Your task to perform on an android device: turn off wifi Image 0: 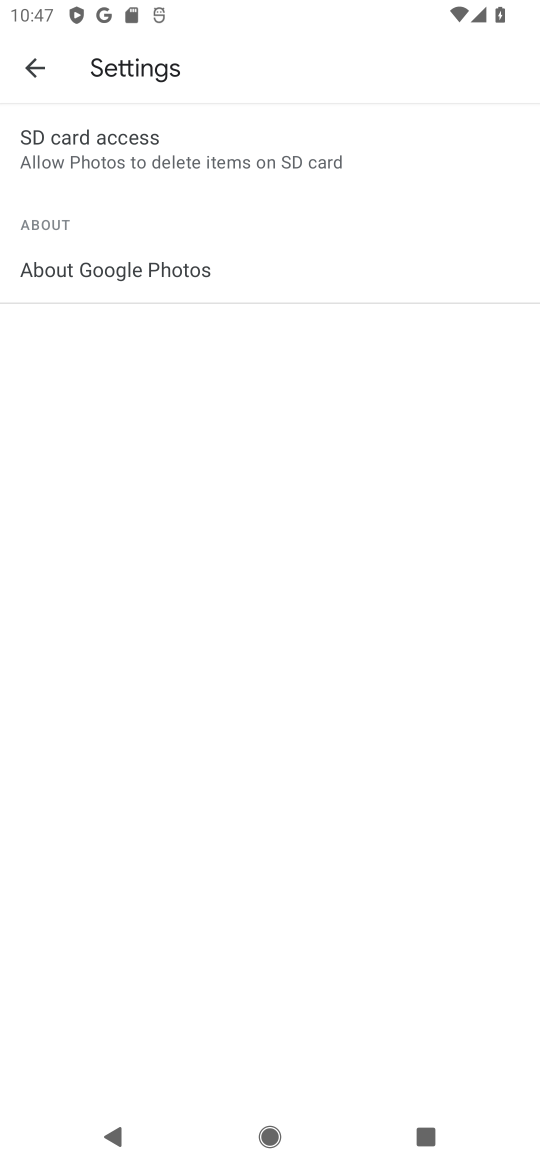
Step 0: drag from (214, 12) to (202, 931)
Your task to perform on an android device: turn off wifi Image 1: 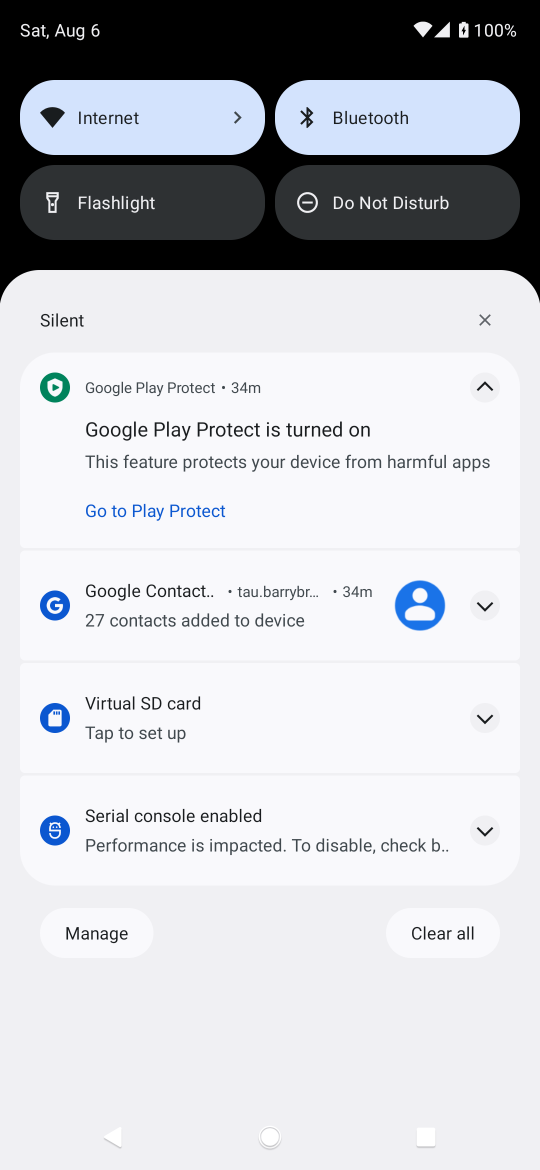
Step 1: click (107, 128)
Your task to perform on an android device: turn off wifi Image 2: 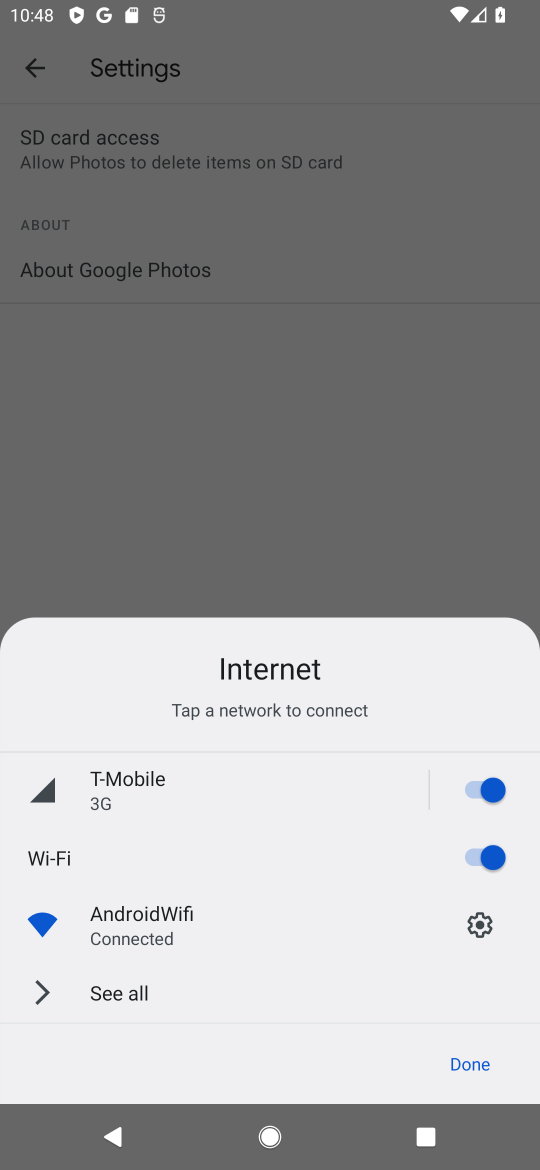
Step 2: click (480, 859)
Your task to perform on an android device: turn off wifi Image 3: 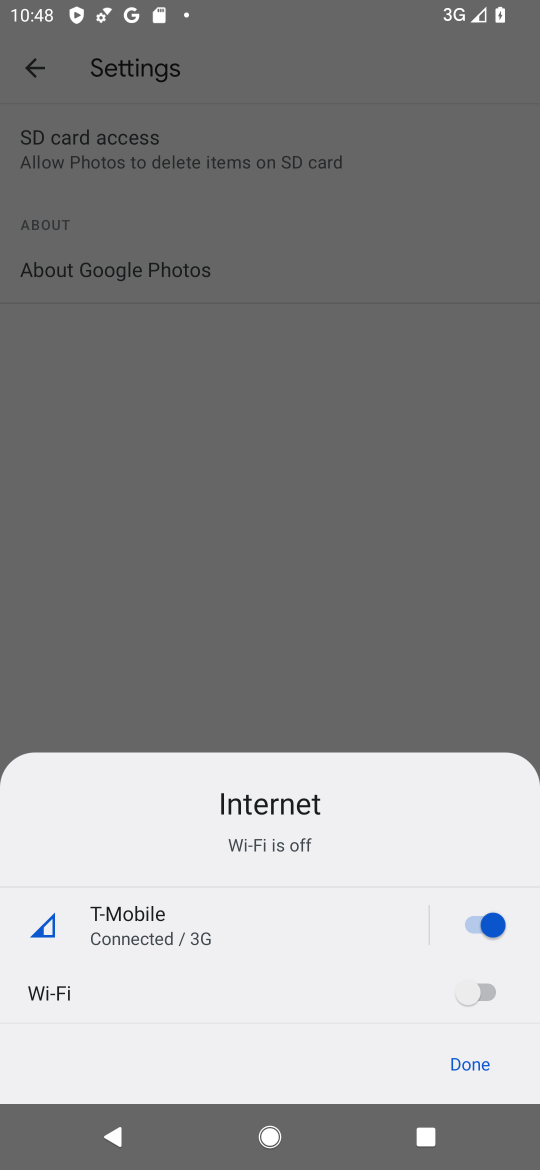
Step 3: task complete